Your task to perform on an android device: delete a single message in the gmail app Image 0: 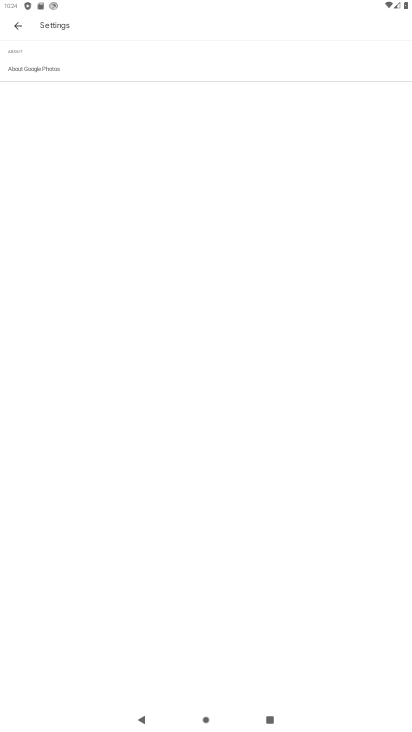
Step 0: press home button
Your task to perform on an android device: delete a single message in the gmail app Image 1: 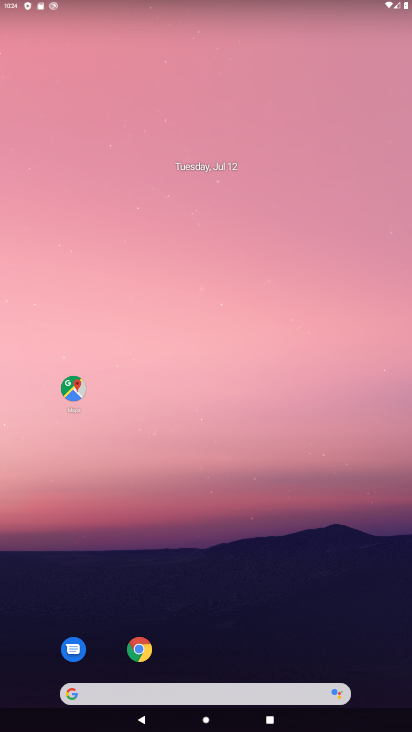
Step 1: drag from (332, 657) to (349, 110)
Your task to perform on an android device: delete a single message in the gmail app Image 2: 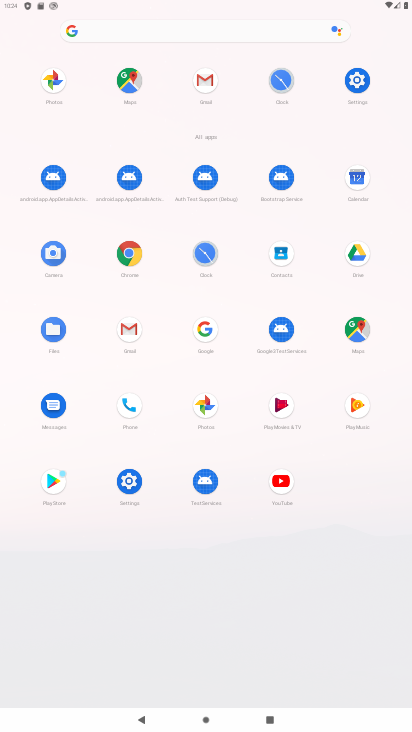
Step 2: click (213, 85)
Your task to perform on an android device: delete a single message in the gmail app Image 3: 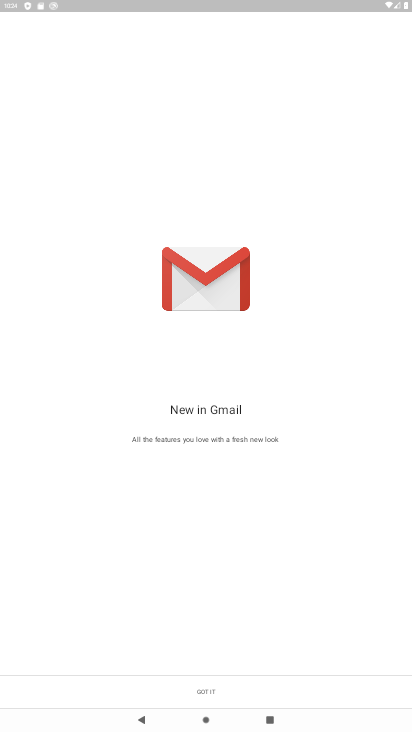
Step 3: click (214, 683)
Your task to perform on an android device: delete a single message in the gmail app Image 4: 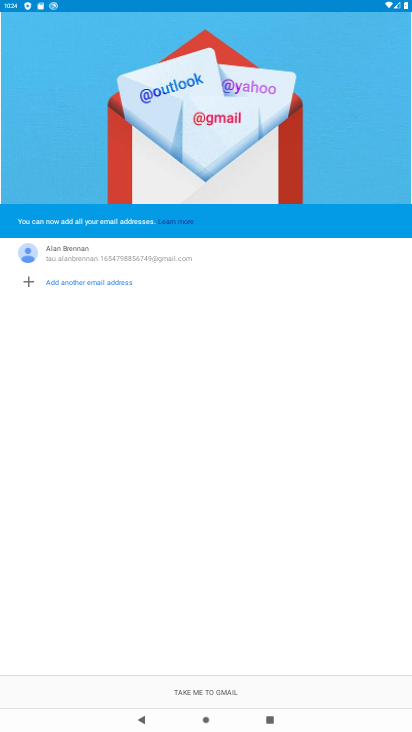
Step 4: click (217, 693)
Your task to perform on an android device: delete a single message in the gmail app Image 5: 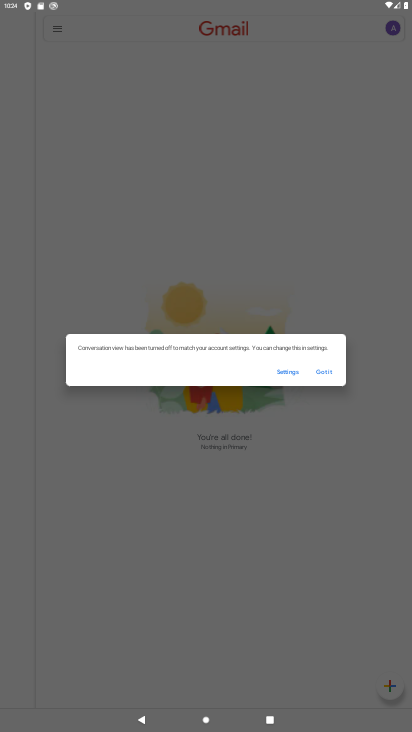
Step 5: click (325, 373)
Your task to perform on an android device: delete a single message in the gmail app Image 6: 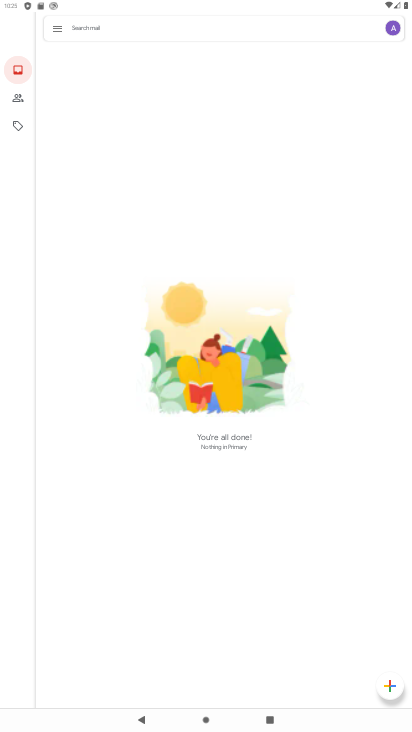
Step 6: task complete